Your task to perform on an android device: visit the assistant section in the google photos Image 0: 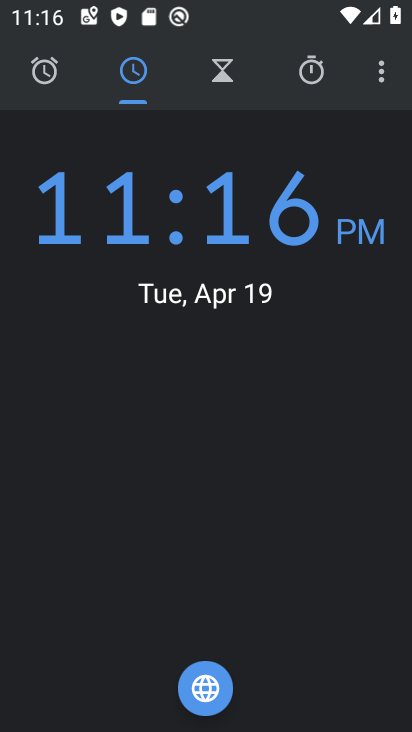
Step 0: press home button
Your task to perform on an android device: visit the assistant section in the google photos Image 1: 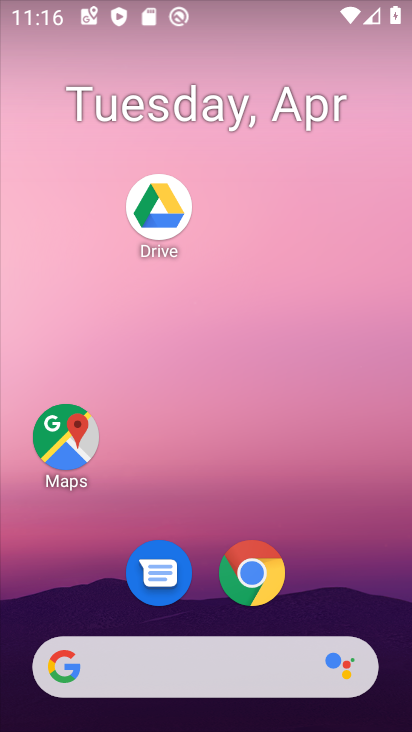
Step 1: drag from (308, 507) to (350, 68)
Your task to perform on an android device: visit the assistant section in the google photos Image 2: 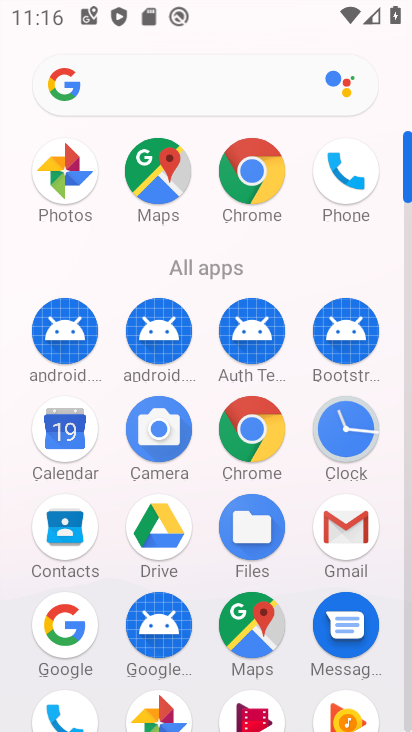
Step 2: click (68, 185)
Your task to perform on an android device: visit the assistant section in the google photos Image 3: 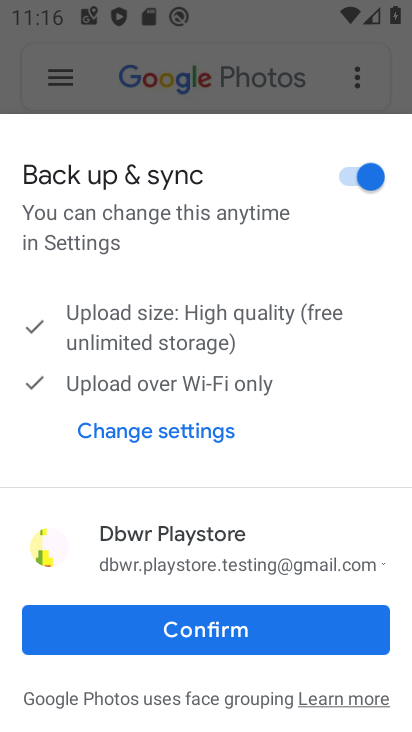
Step 3: click (252, 641)
Your task to perform on an android device: visit the assistant section in the google photos Image 4: 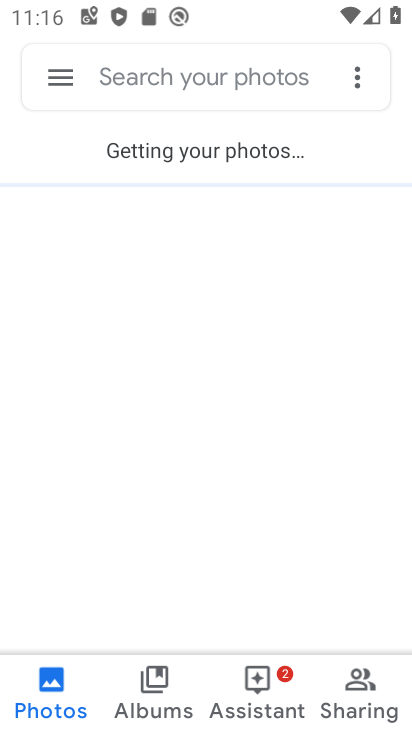
Step 4: click (261, 699)
Your task to perform on an android device: visit the assistant section in the google photos Image 5: 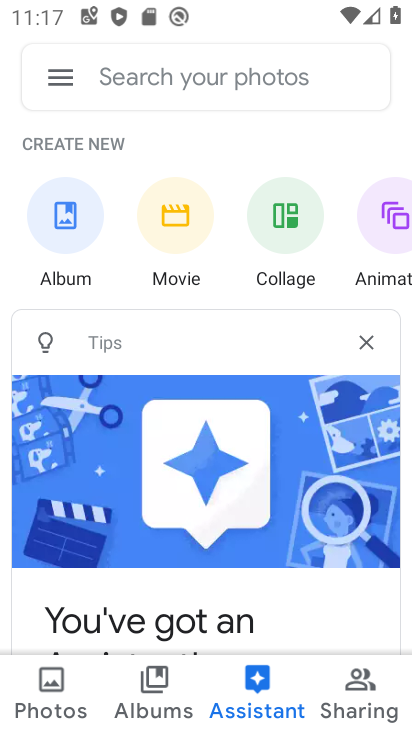
Step 5: task complete